Your task to perform on an android device: Go to CNN.com Image 0: 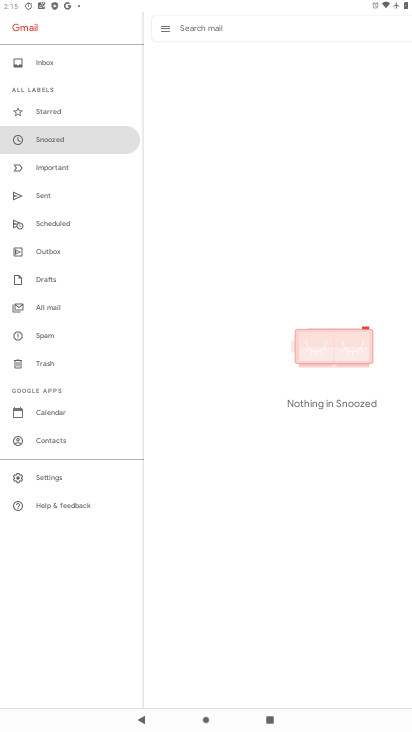
Step 0: press home button
Your task to perform on an android device: Go to CNN.com Image 1: 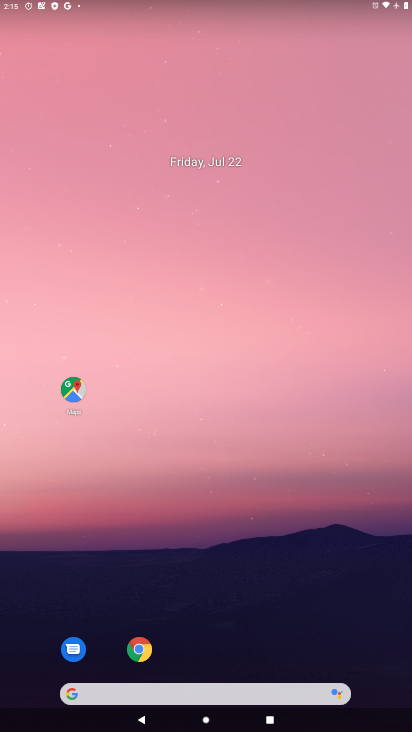
Step 1: click (141, 647)
Your task to perform on an android device: Go to CNN.com Image 2: 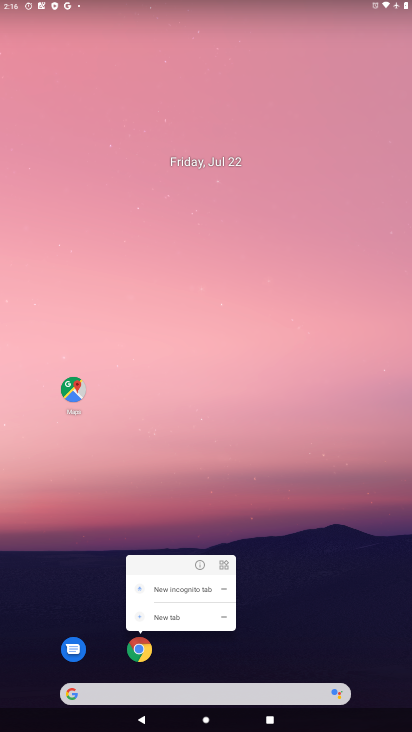
Step 2: drag from (389, 544) to (311, 42)
Your task to perform on an android device: Go to CNN.com Image 3: 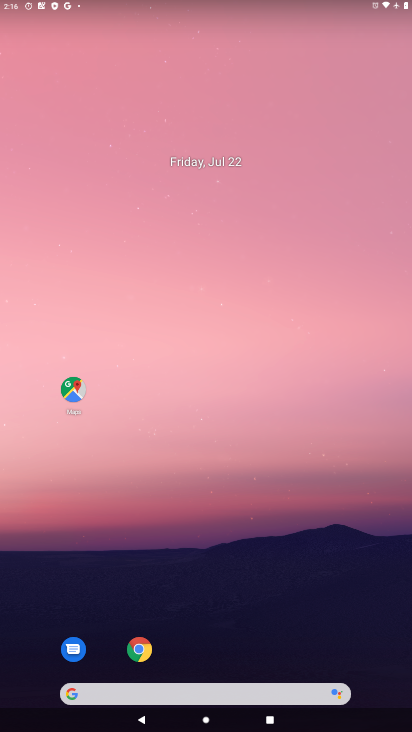
Step 3: drag from (286, 496) to (254, 110)
Your task to perform on an android device: Go to CNN.com Image 4: 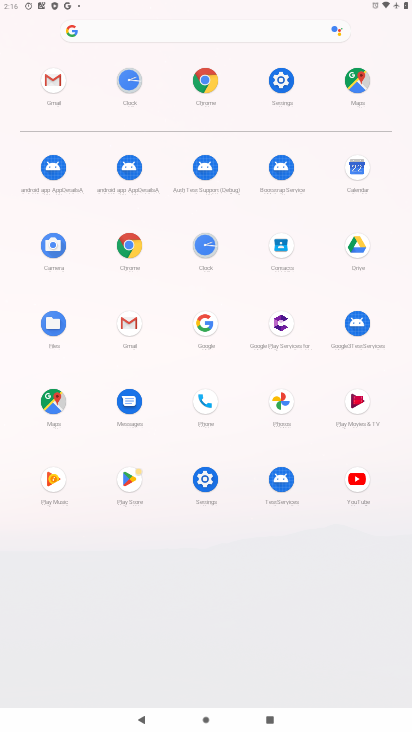
Step 4: click (211, 82)
Your task to perform on an android device: Go to CNN.com Image 5: 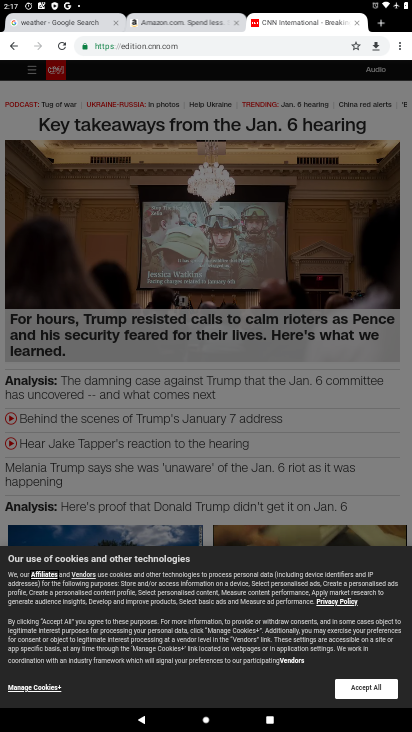
Step 5: click (191, 42)
Your task to perform on an android device: Go to CNN.com Image 6: 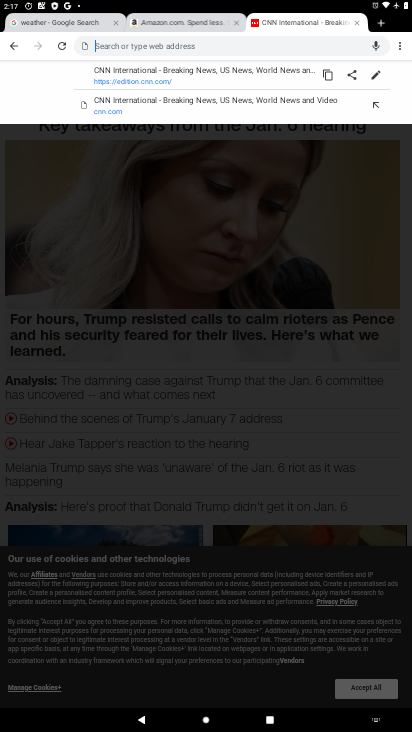
Step 6: type "cnn.com"
Your task to perform on an android device: Go to CNN.com Image 7: 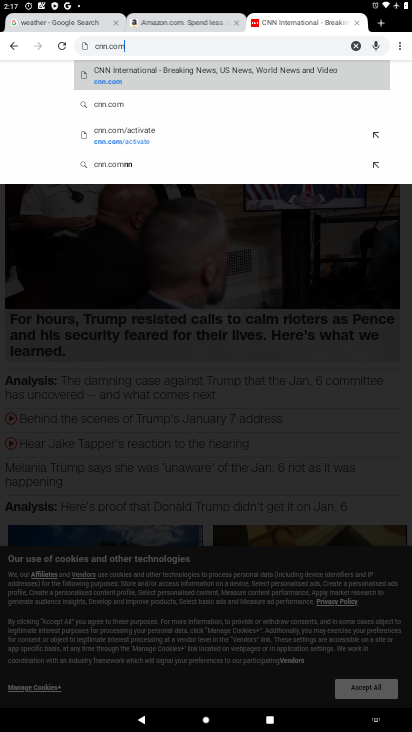
Step 7: click (142, 82)
Your task to perform on an android device: Go to CNN.com Image 8: 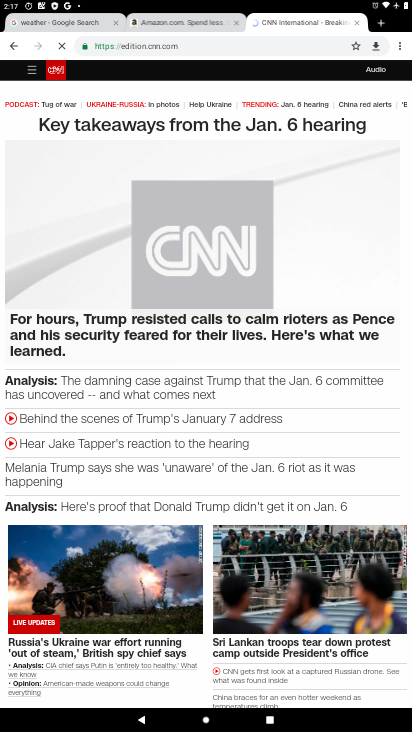
Step 8: task complete